Your task to perform on an android device: open chrome privacy settings Image 0: 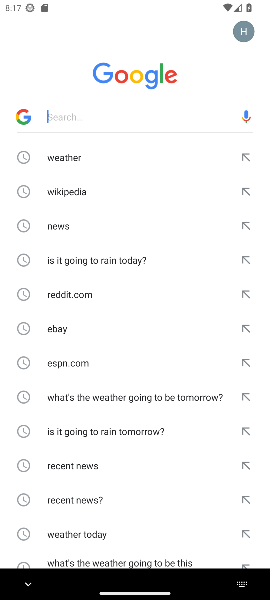
Step 0: press home button
Your task to perform on an android device: open chrome privacy settings Image 1: 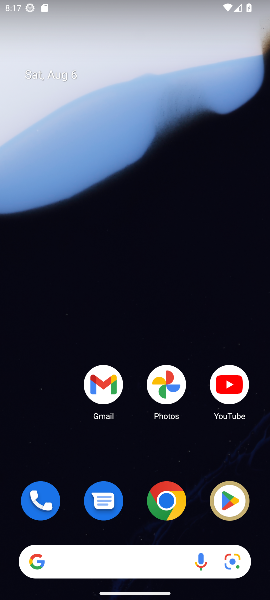
Step 1: click (167, 496)
Your task to perform on an android device: open chrome privacy settings Image 2: 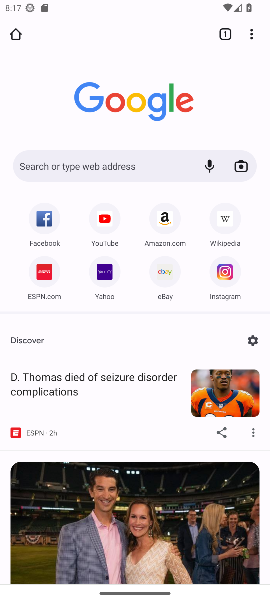
Step 2: click (251, 30)
Your task to perform on an android device: open chrome privacy settings Image 3: 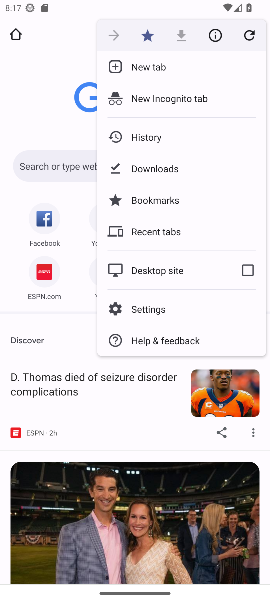
Step 3: click (149, 296)
Your task to perform on an android device: open chrome privacy settings Image 4: 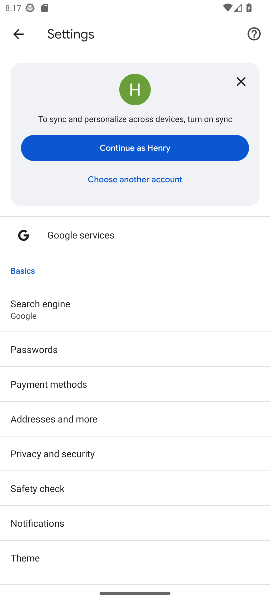
Step 4: click (34, 451)
Your task to perform on an android device: open chrome privacy settings Image 5: 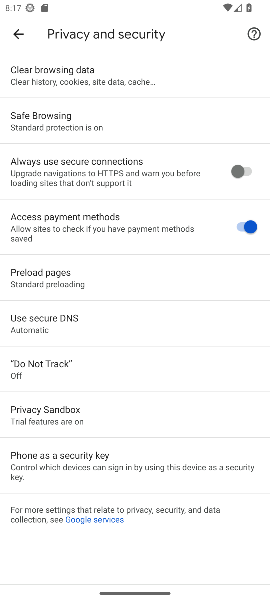
Step 5: task complete